Your task to perform on an android device: Open wifi settings Image 0: 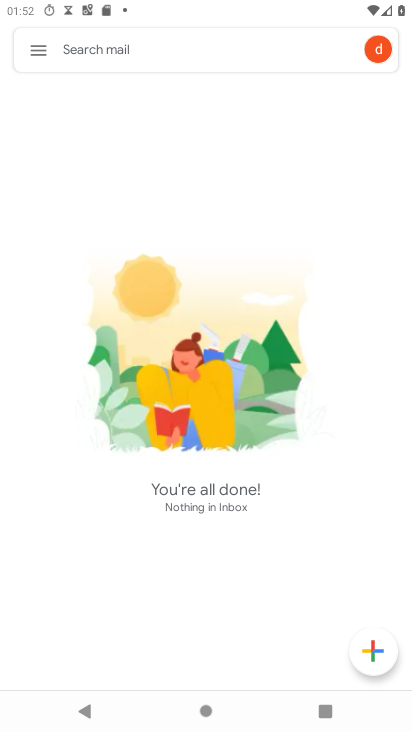
Step 0: press home button
Your task to perform on an android device: Open wifi settings Image 1: 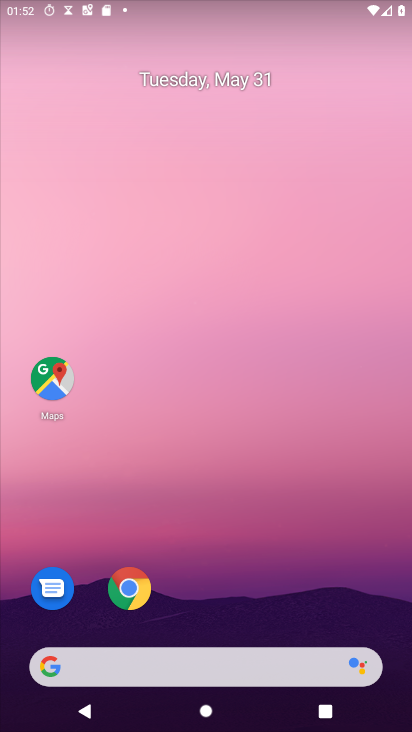
Step 1: drag from (306, 656) to (305, 13)
Your task to perform on an android device: Open wifi settings Image 2: 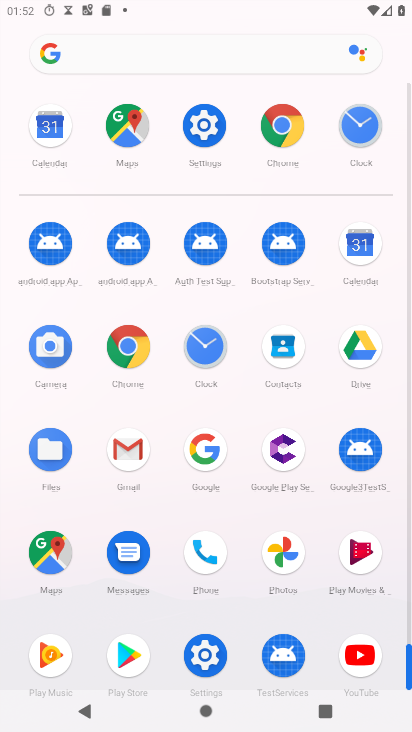
Step 2: click (215, 138)
Your task to perform on an android device: Open wifi settings Image 3: 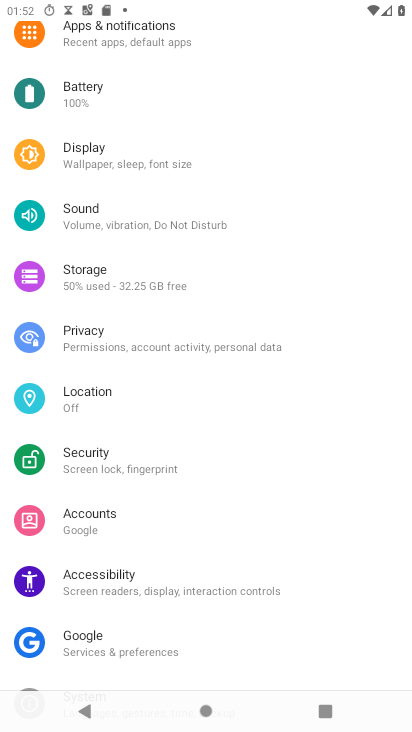
Step 3: drag from (189, 198) to (147, 635)
Your task to perform on an android device: Open wifi settings Image 4: 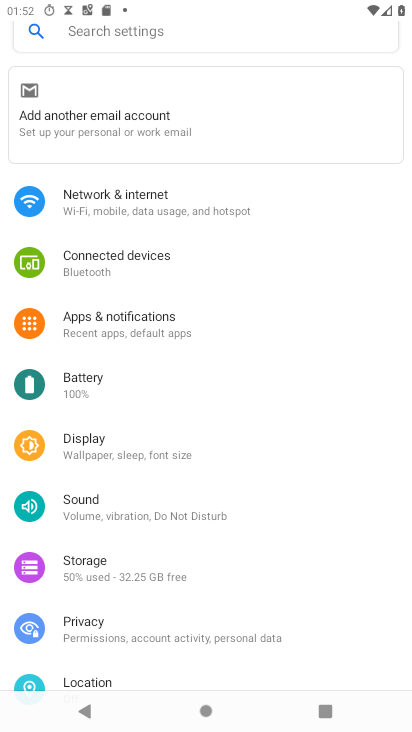
Step 4: click (171, 219)
Your task to perform on an android device: Open wifi settings Image 5: 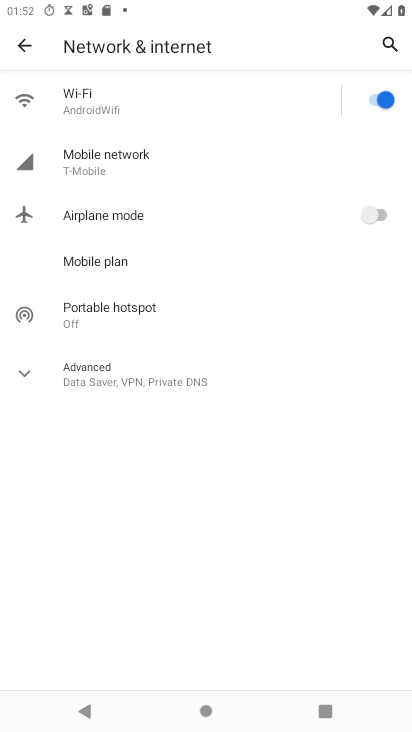
Step 5: click (135, 113)
Your task to perform on an android device: Open wifi settings Image 6: 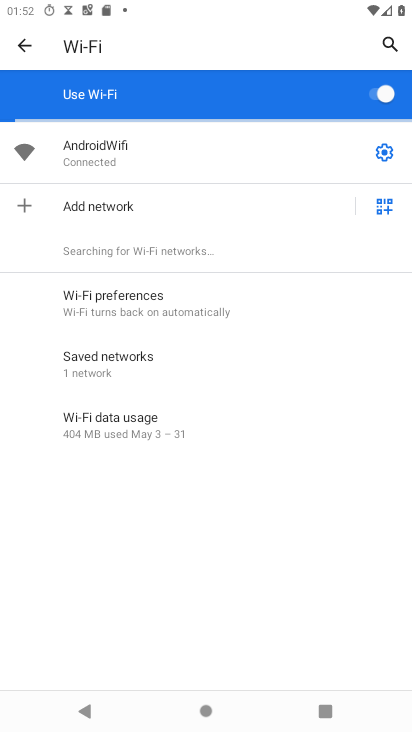
Step 6: task complete